Your task to perform on an android device: turn notification dots on Image 0: 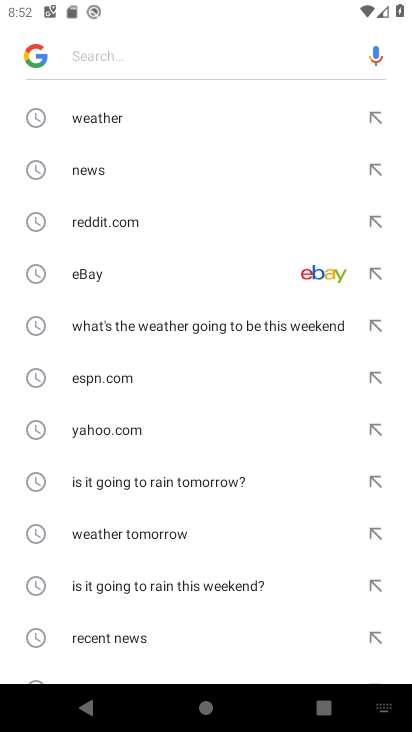
Step 0: press home button
Your task to perform on an android device: turn notification dots on Image 1: 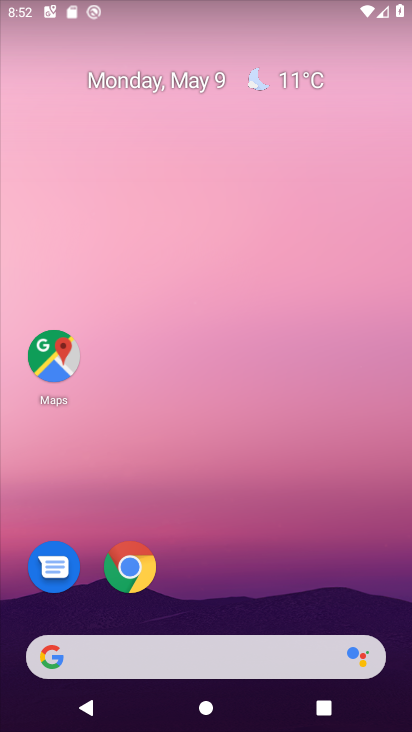
Step 1: drag from (266, 512) to (233, 7)
Your task to perform on an android device: turn notification dots on Image 2: 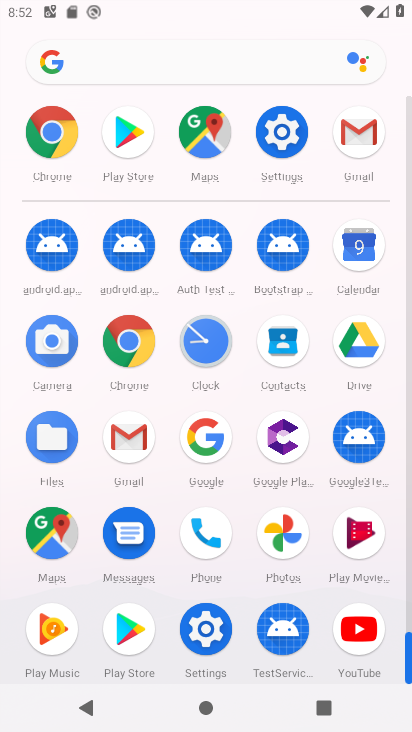
Step 2: click (285, 137)
Your task to perform on an android device: turn notification dots on Image 3: 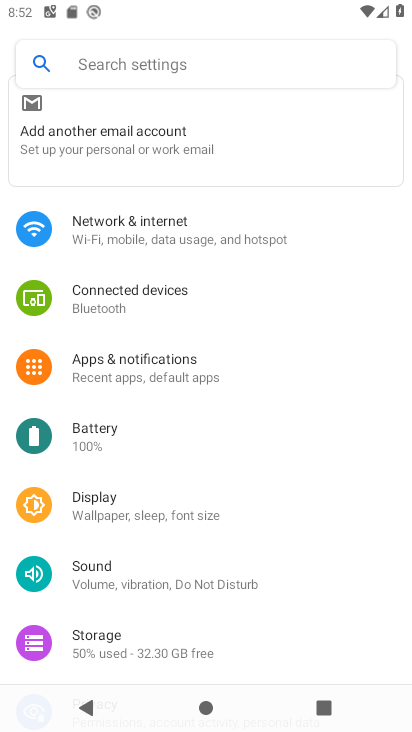
Step 3: click (187, 361)
Your task to perform on an android device: turn notification dots on Image 4: 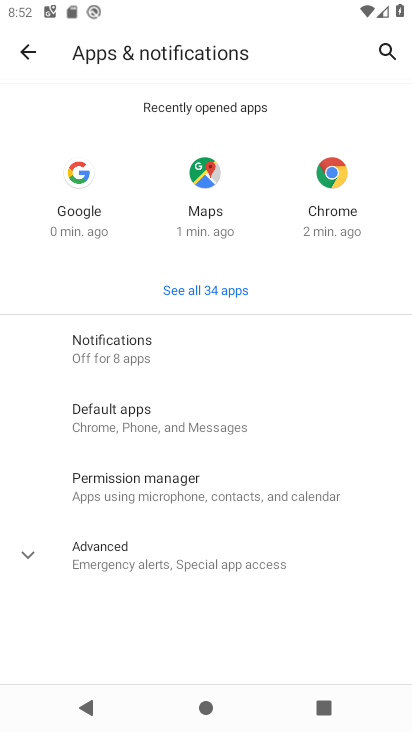
Step 4: click (182, 347)
Your task to perform on an android device: turn notification dots on Image 5: 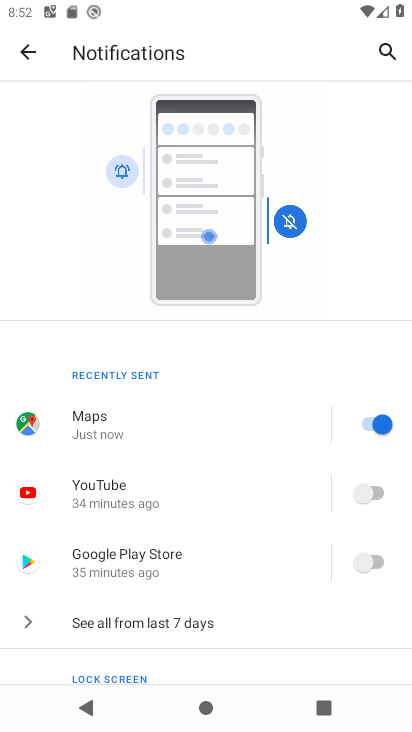
Step 5: drag from (219, 599) to (262, 125)
Your task to perform on an android device: turn notification dots on Image 6: 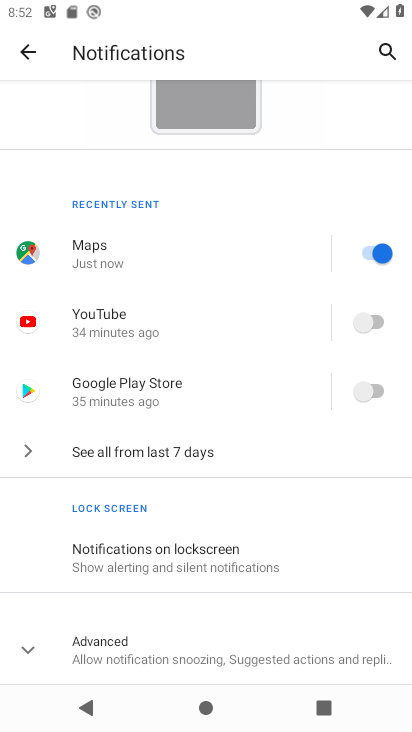
Step 6: click (26, 642)
Your task to perform on an android device: turn notification dots on Image 7: 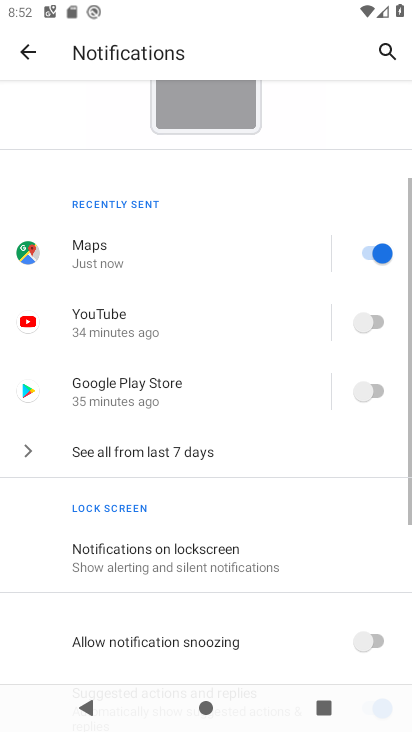
Step 7: drag from (233, 558) to (259, 166)
Your task to perform on an android device: turn notification dots on Image 8: 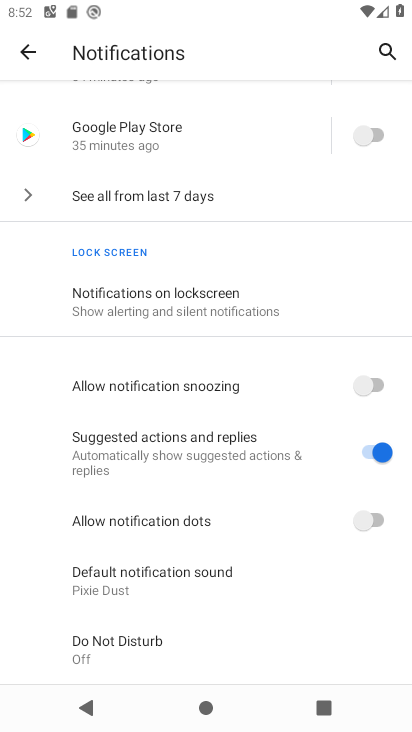
Step 8: click (376, 508)
Your task to perform on an android device: turn notification dots on Image 9: 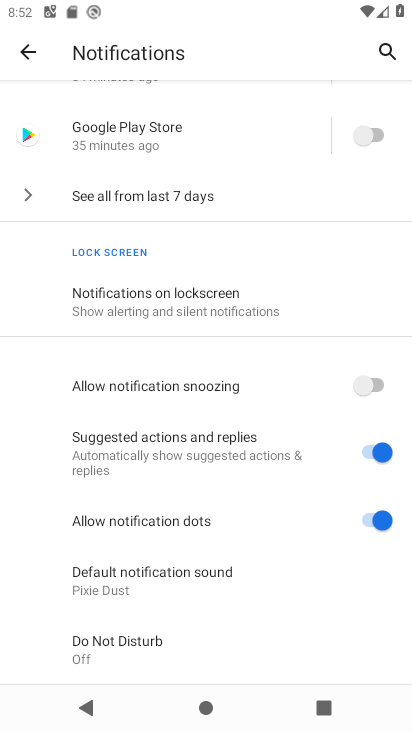
Step 9: task complete